Your task to perform on an android device: Search for "dell alienware" on target, select the first entry, add it to the cart, then select checkout. Image 0: 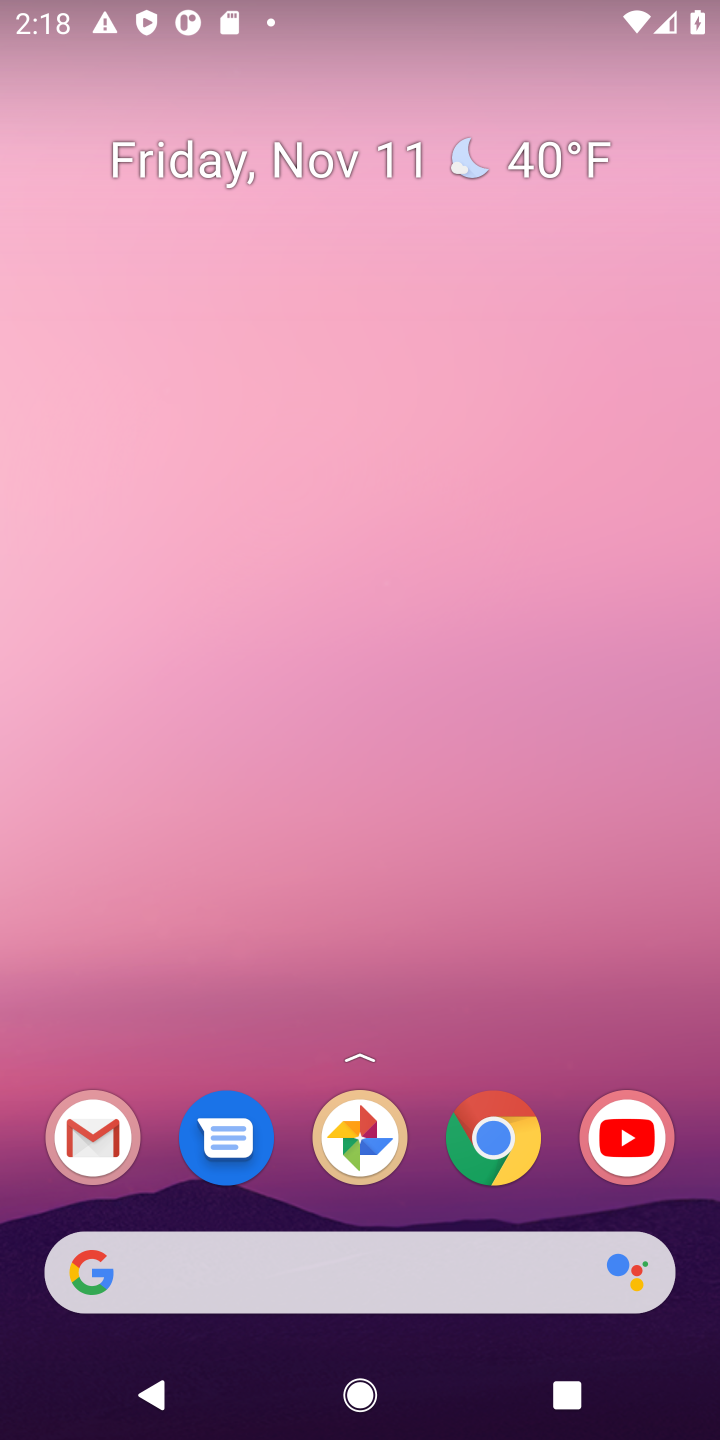
Step 0: click (498, 1138)
Your task to perform on an android device: Search for "dell alienware" on target, select the first entry, add it to the cart, then select checkout. Image 1: 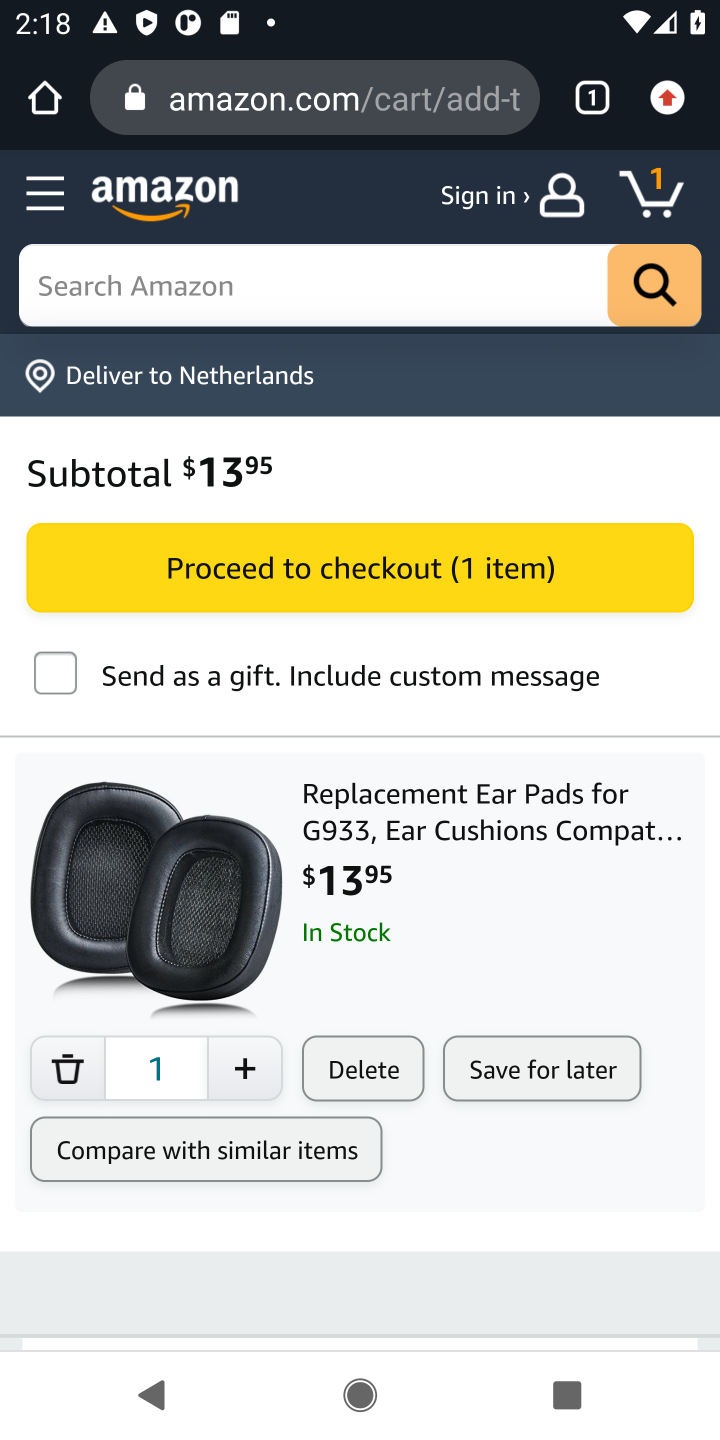
Step 1: click (390, 100)
Your task to perform on an android device: Search for "dell alienware" on target, select the first entry, add it to the cart, then select checkout. Image 2: 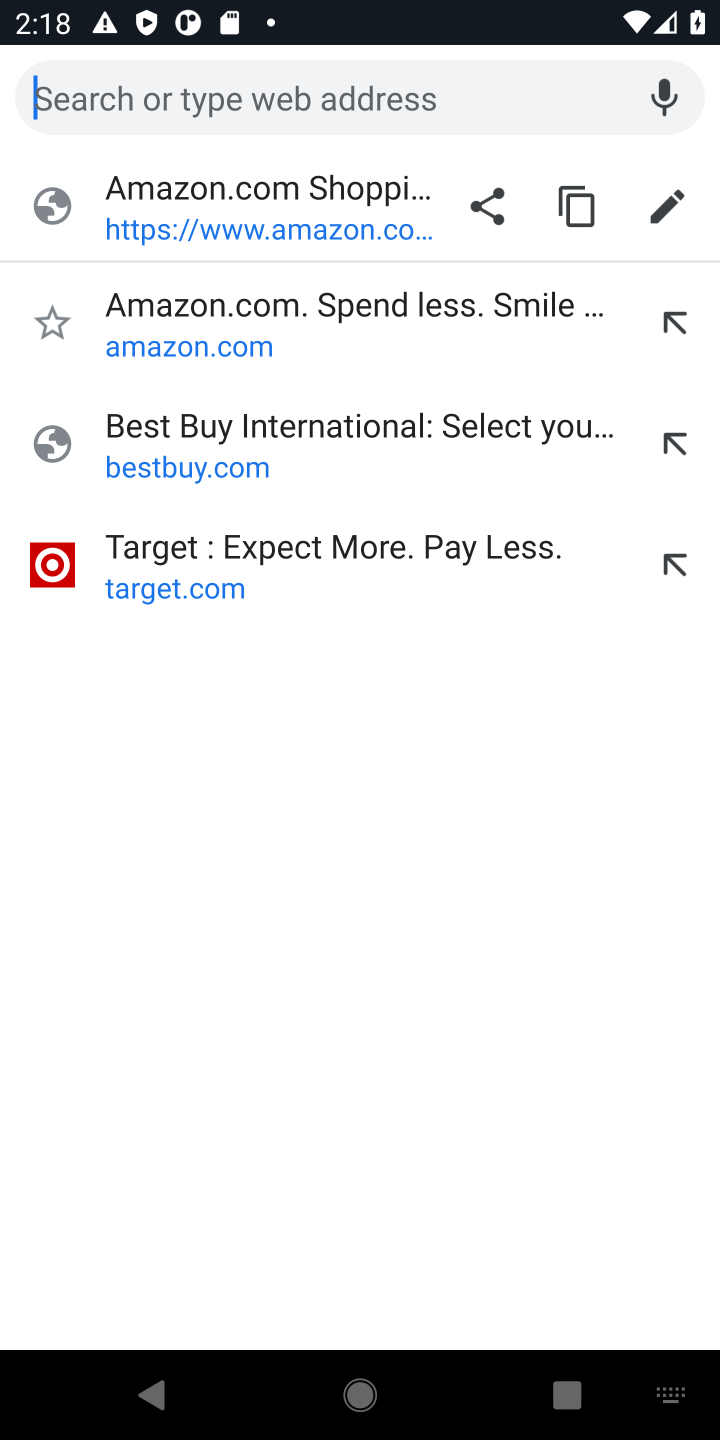
Step 2: click (262, 545)
Your task to perform on an android device: Search for "dell alienware" on target, select the first entry, add it to the cart, then select checkout. Image 3: 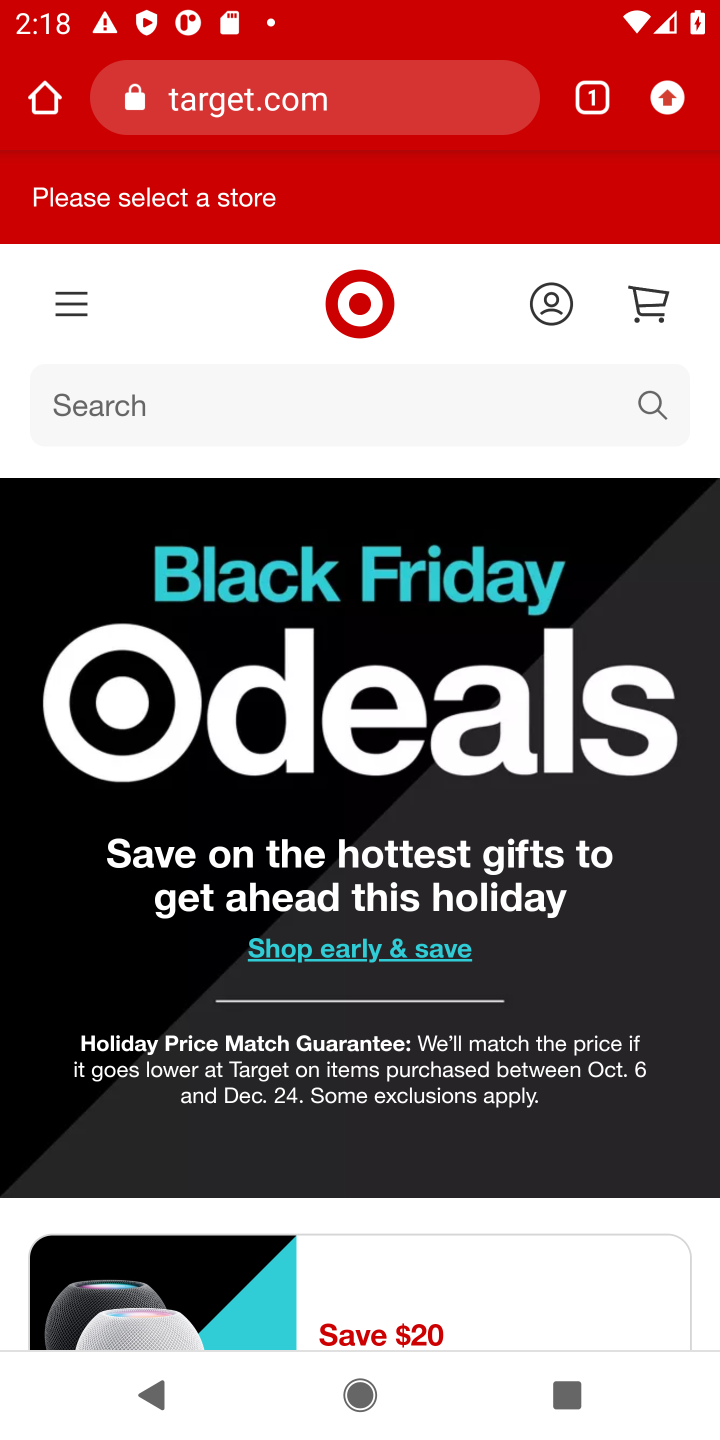
Step 3: click (650, 408)
Your task to perform on an android device: Search for "dell alienware" on target, select the first entry, add it to the cart, then select checkout. Image 4: 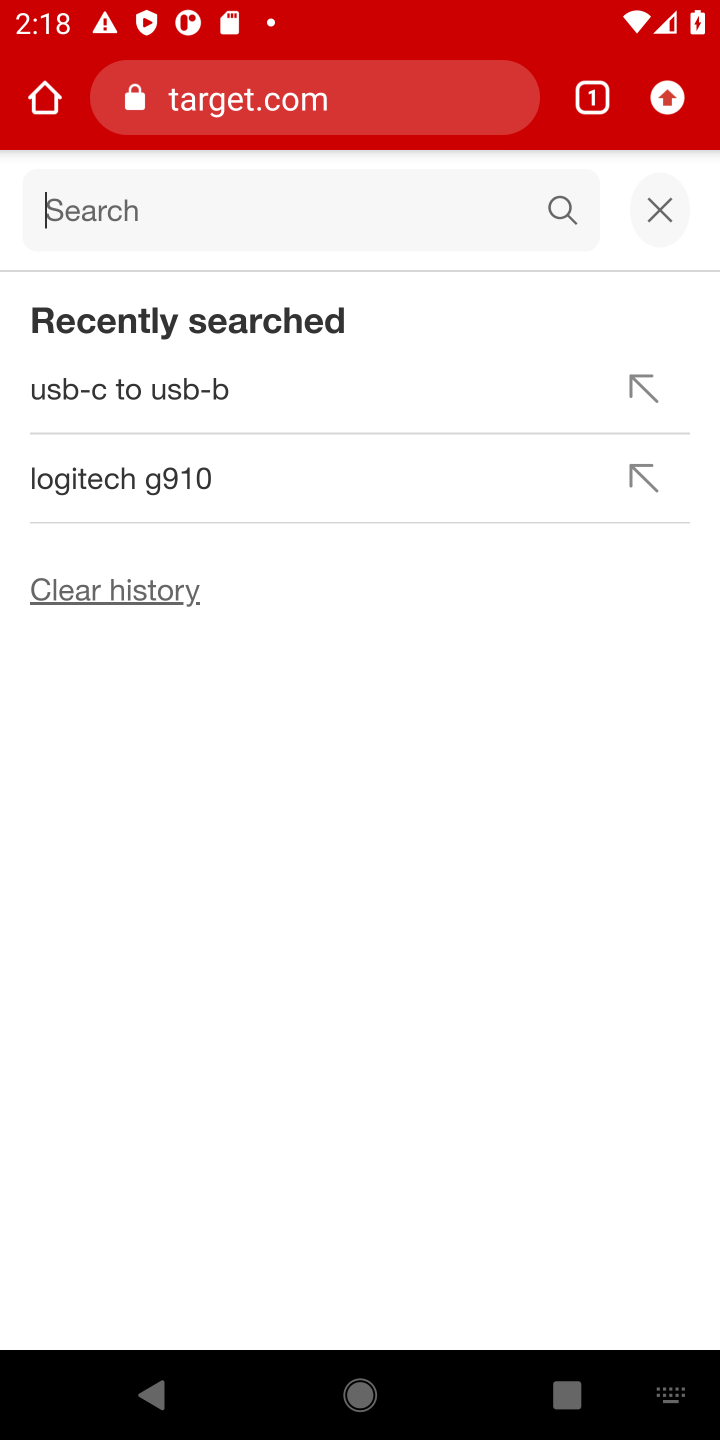
Step 4: type "dell alienware"
Your task to perform on an android device: Search for "dell alienware" on target, select the first entry, add it to the cart, then select checkout. Image 5: 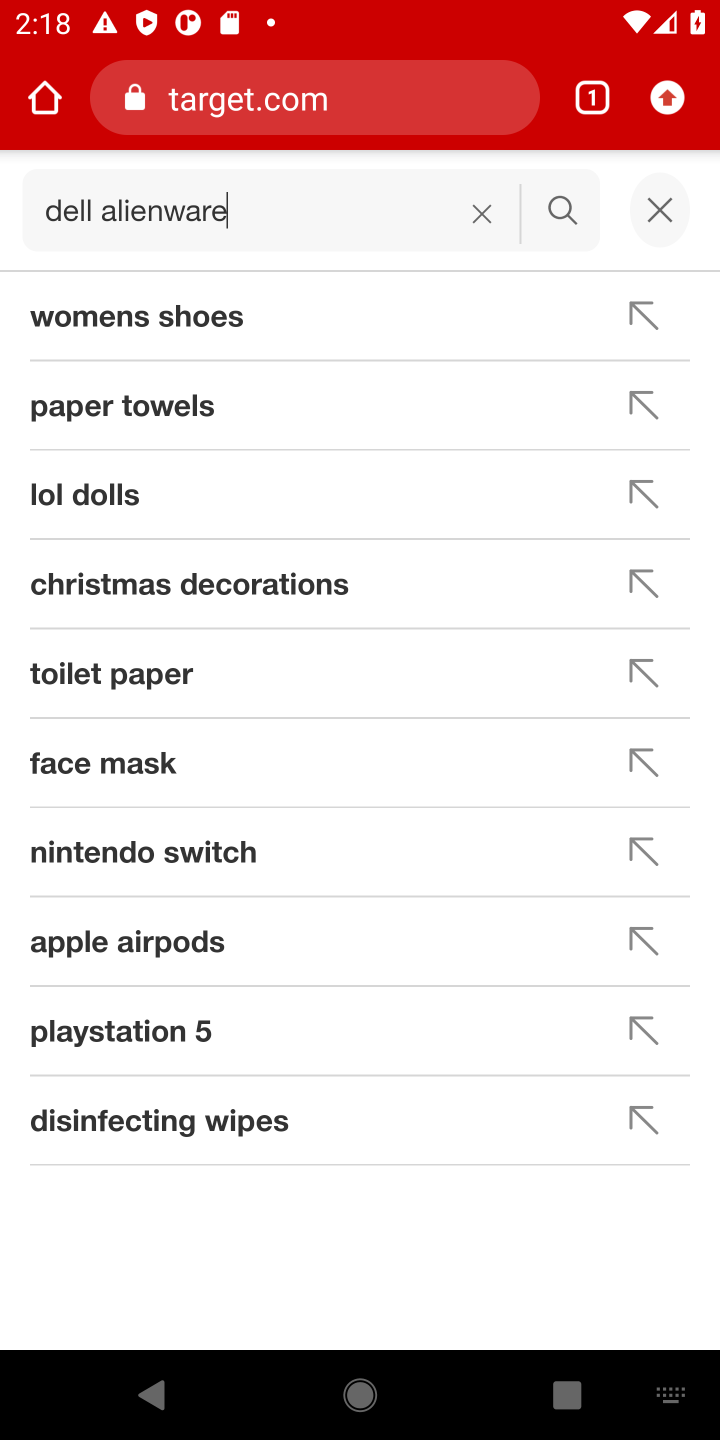
Step 5: press enter
Your task to perform on an android device: Search for "dell alienware" on target, select the first entry, add it to the cart, then select checkout. Image 6: 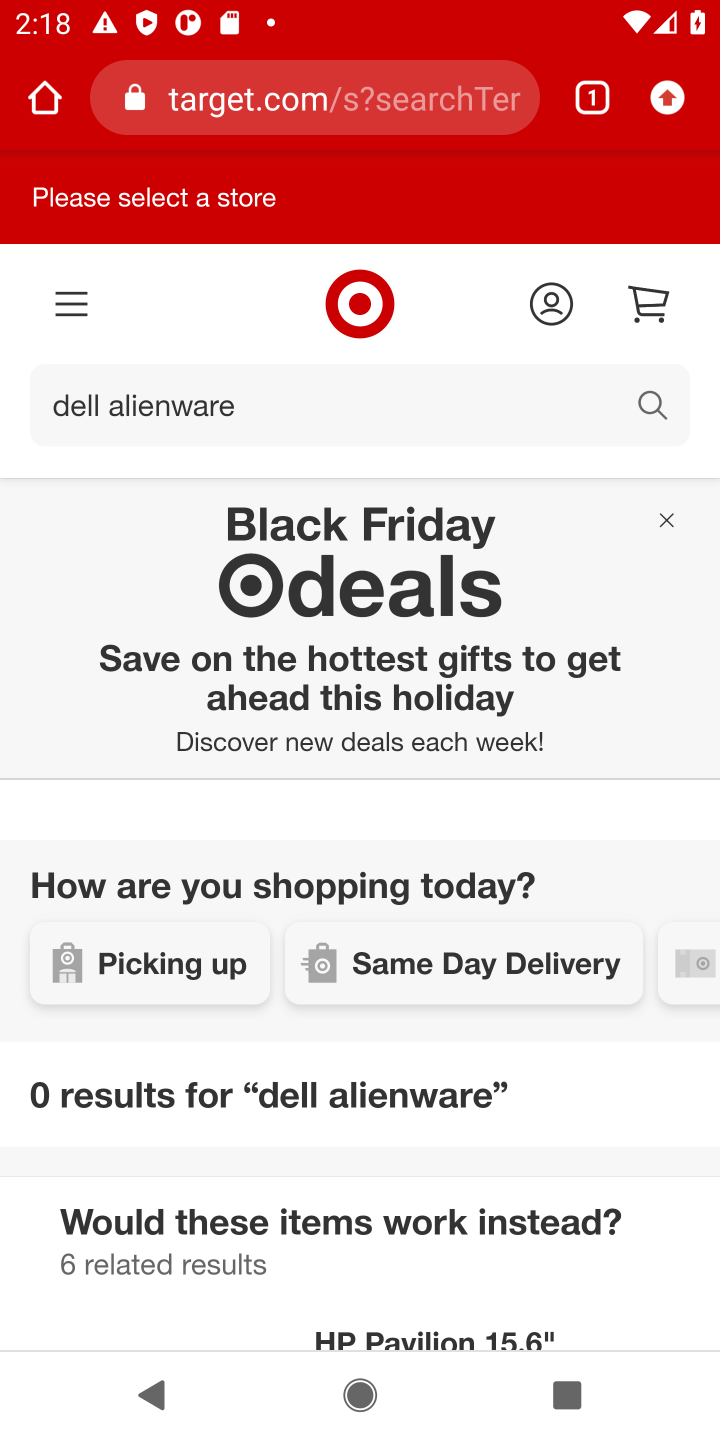
Step 6: task complete